Your task to perform on an android device: Go to Wikipedia Image 0: 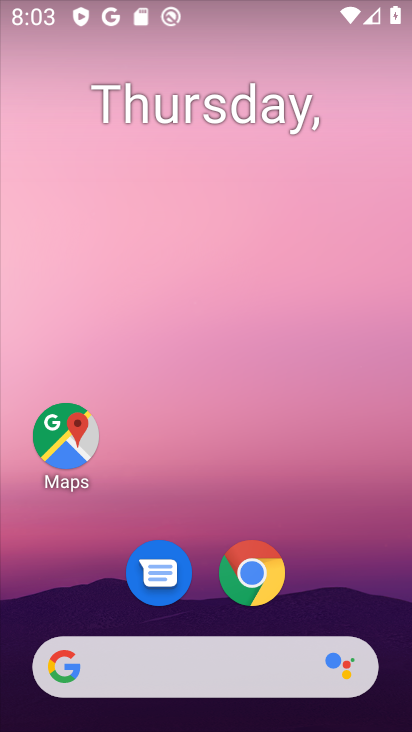
Step 0: drag from (356, 572) to (311, 244)
Your task to perform on an android device: Go to Wikipedia Image 1: 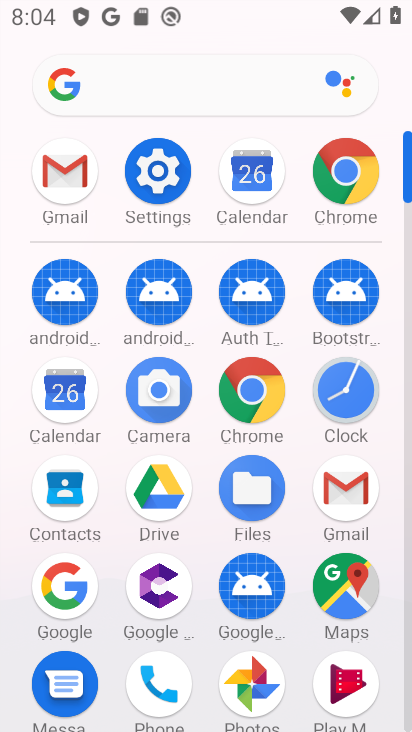
Step 1: click (261, 420)
Your task to perform on an android device: Go to Wikipedia Image 2: 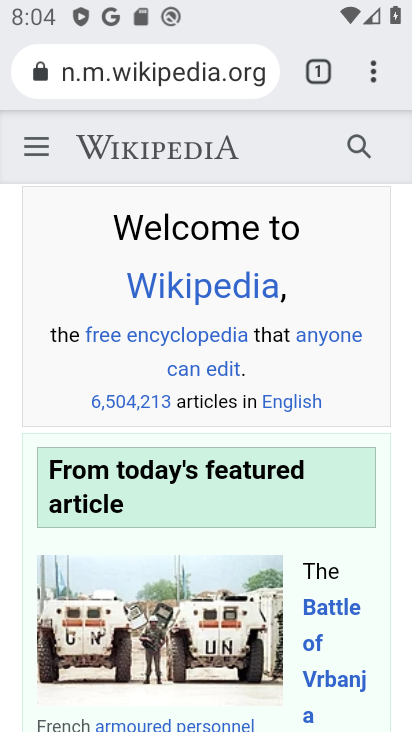
Step 2: task complete